Your task to perform on an android device: show emergency info Image 0: 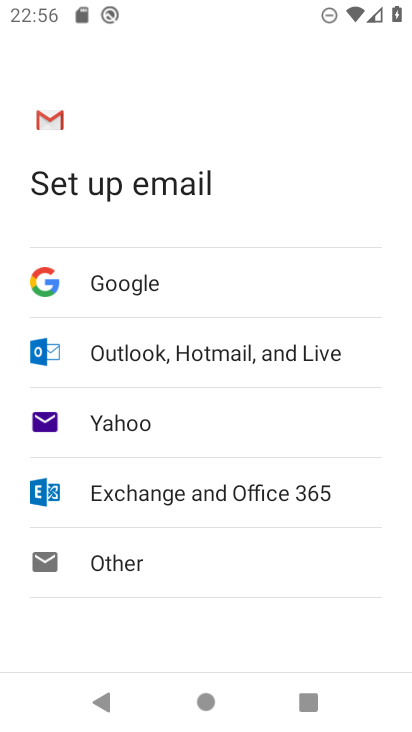
Step 0: press home button
Your task to perform on an android device: show emergency info Image 1: 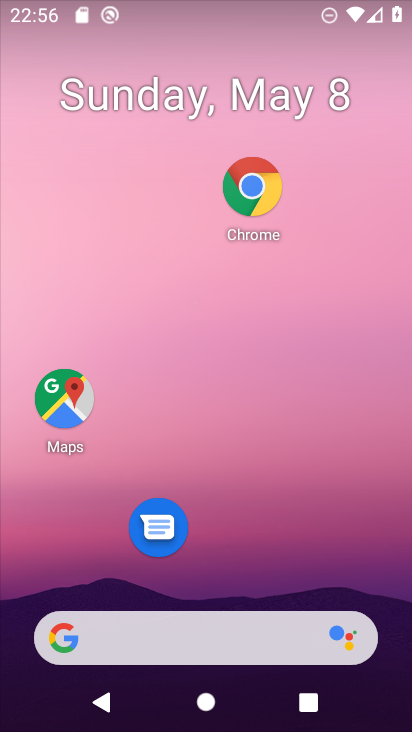
Step 1: click (284, 510)
Your task to perform on an android device: show emergency info Image 2: 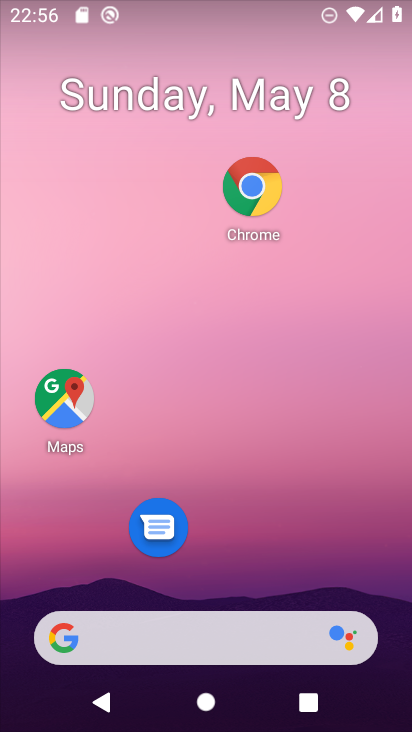
Step 2: drag from (320, 318) to (317, 255)
Your task to perform on an android device: show emergency info Image 3: 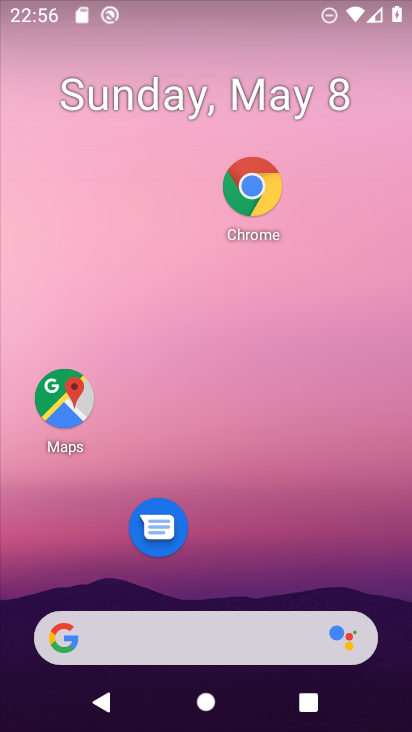
Step 3: drag from (256, 564) to (274, 218)
Your task to perform on an android device: show emergency info Image 4: 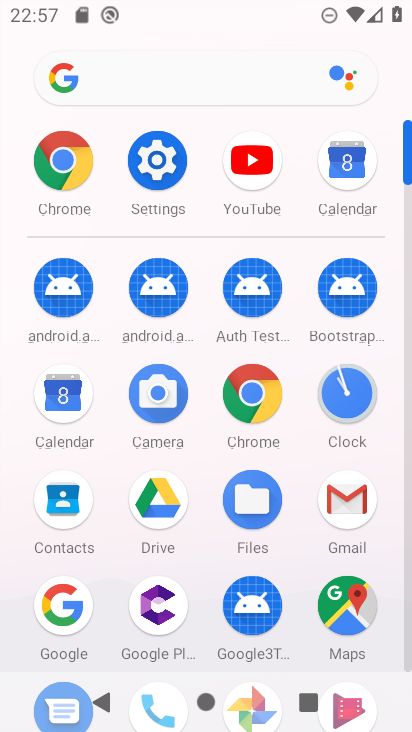
Step 4: click (160, 161)
Your task to perform on an android device: show emergency info Image 5: 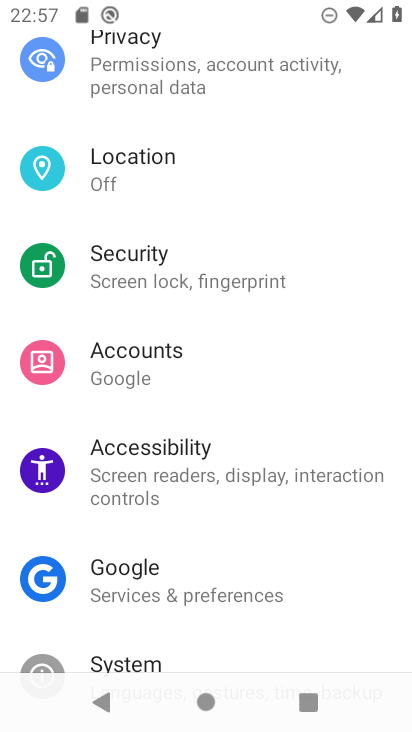
Step 5: drag from (260, 611) to (302, 169)
Your task to perform on an android device: show emergency info Image 6: 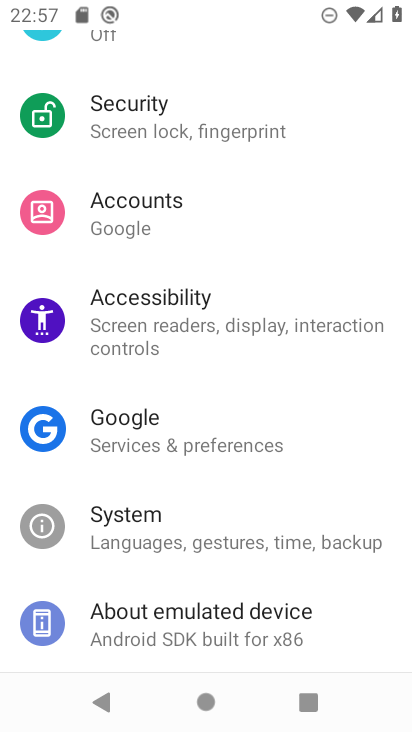
Step 6: click (180, 613)
Your task to perform on an android device: show emergency info Image 7: 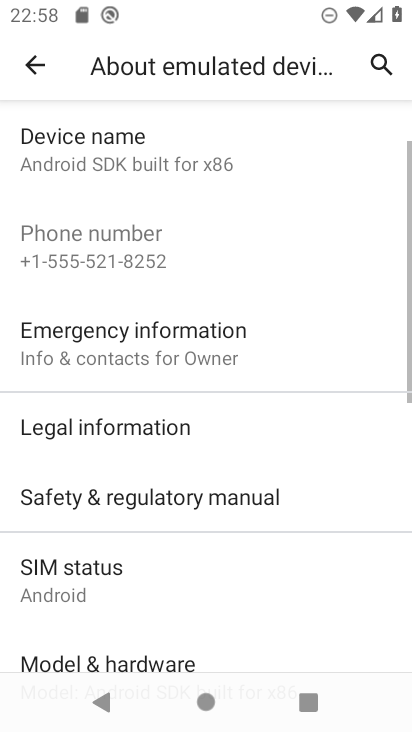
Step 7: task complete